Your task to perform on an android device: change text size in settings app Image 0: 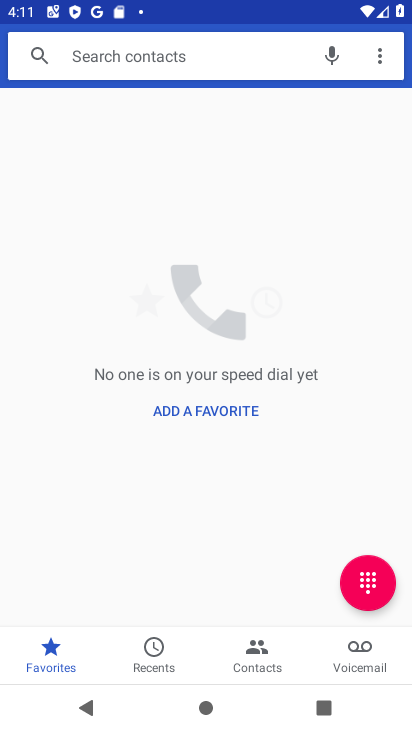
Step 0: press back button
Your task to perform on an android device: change text size in settings app Image 1: 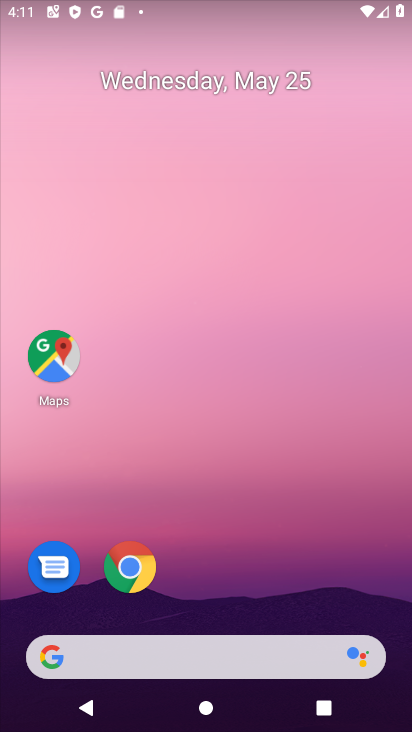
Step 1: drag from (244, 416) to (240, 2)
Your task to perform on an android device: change text size in settings app Image 2: 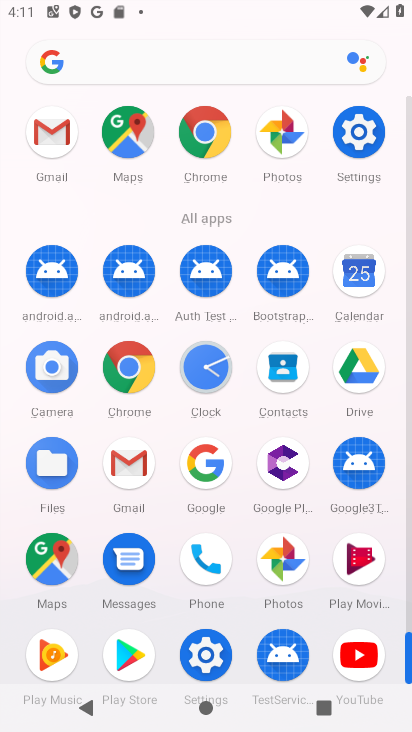
Step 2: click (206, 653)
Your task to perform on an android device: change text size in settings app Image 3: 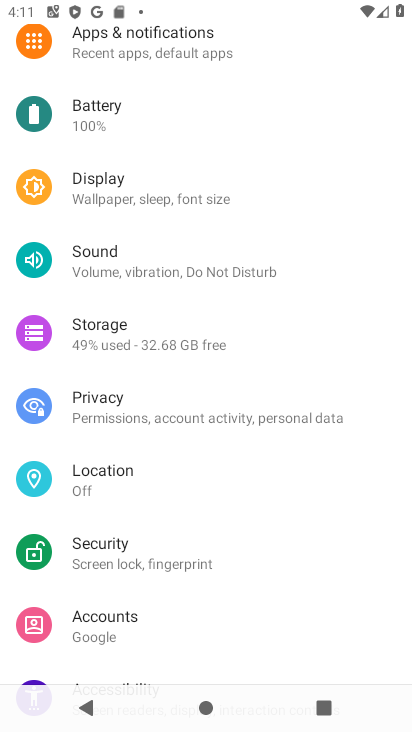
Step 3: click (136, 183)
Your task to perform on an android device: change text size in settings app Image 4: 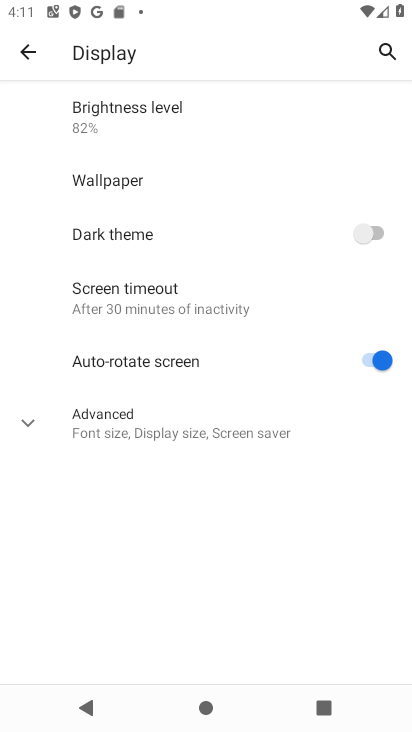
Step 4: click (76, 417)
Your task to perform on an android device: change text size in settings app Image 5: 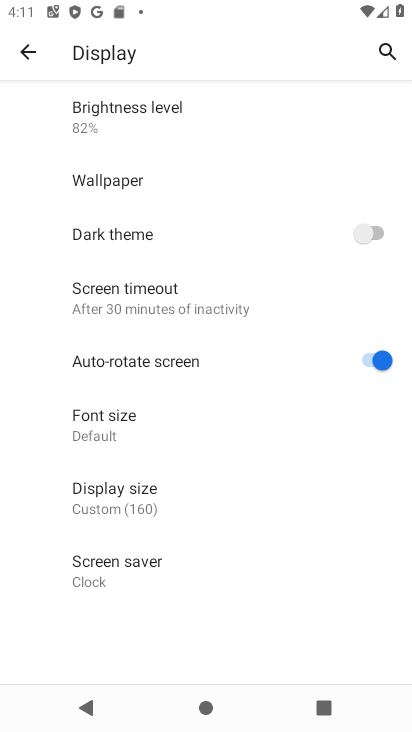
Step 5: click (127, 425)
Your task to perform on an android device: change text size in settings app Image 6: 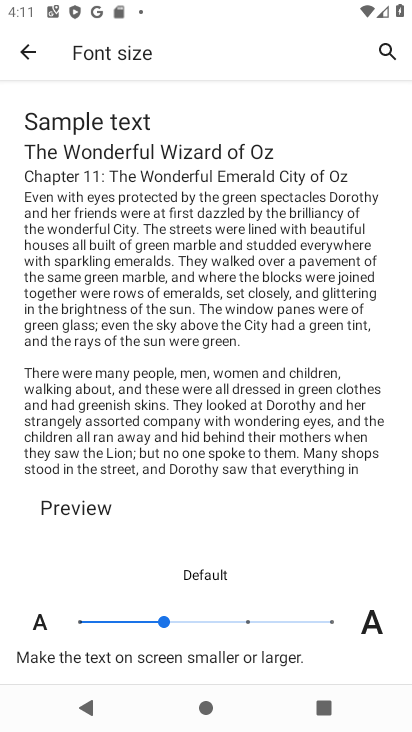
Step 6: click (321, 620)
Your task to perform on an android device: change text size in settings app Image 7: 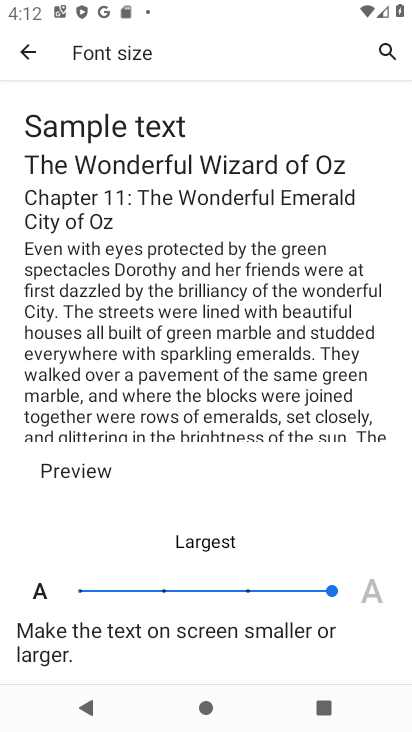
Step 7: task complete